Your task to perform on an android device: turn off notifications settings in the gmail app Image 0: 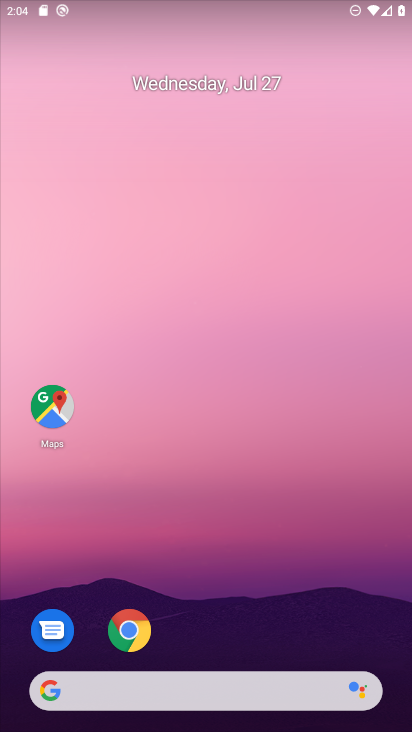
Step 0: drag from (387, 651) to (337, 155)
Your task to perform on an android device: turn off notifications settings in the gmail app Image 1: 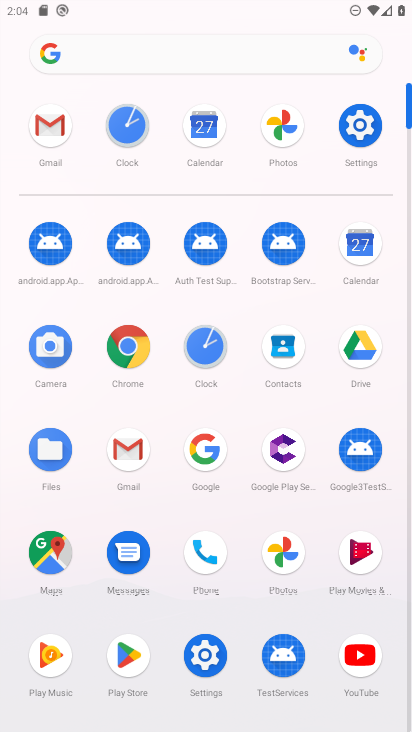
Step 1: click (124, 446)
Your task to perform on an android device: turn off notifications settings in the gmail app Image 2: 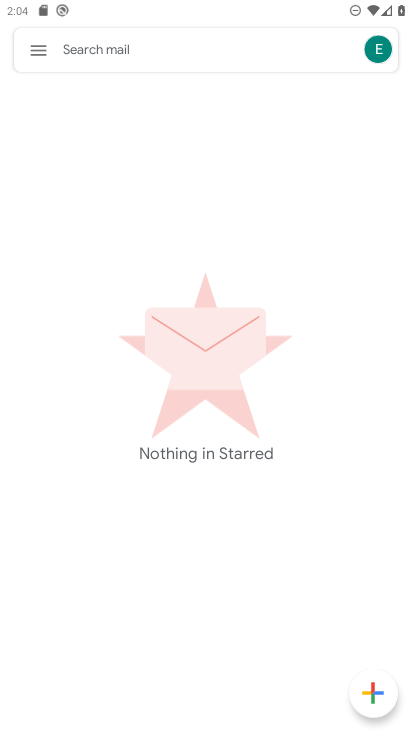
Step 2: click (36, 49)
Your task to perform on an android device: turn off notifications settings in the gmail app Image 3: 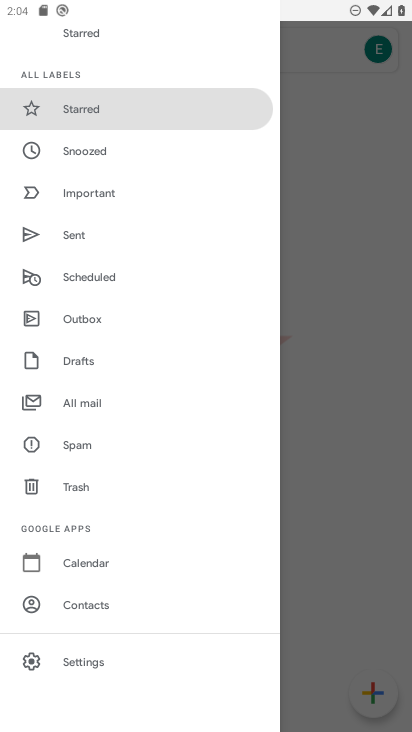
Step 3: click (75, 661)
Your task to perform on an android device: turn off notifications settings in the gmail app Image 4: 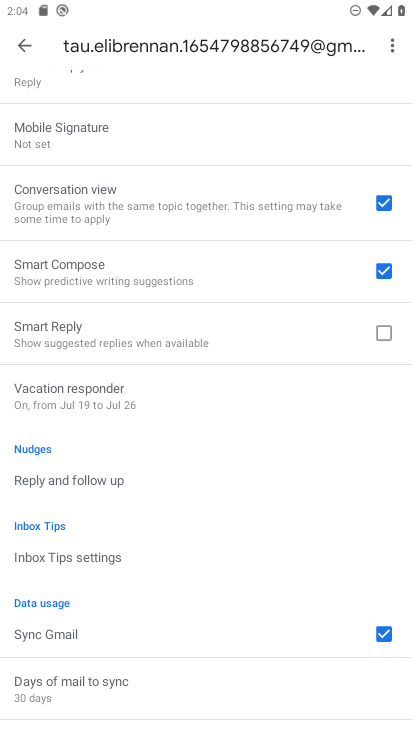
Step 4: drag from (233, 204) to (214, 486)
Your task to perform on an android device: turn off notifications settings in the gmail app Image 5: 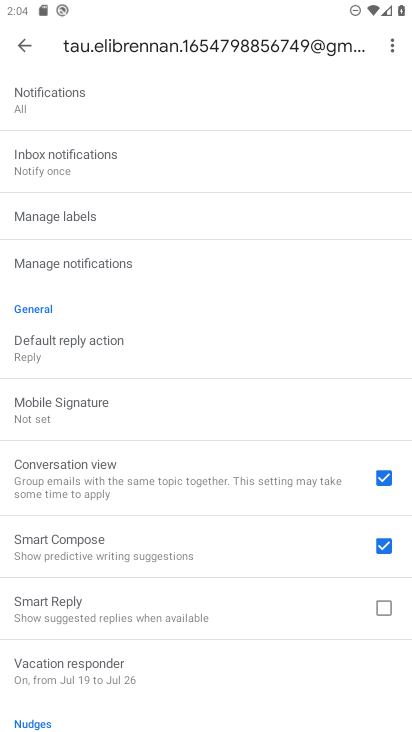
Step 5: drag from (180, 247) to (217, 550)
Your task to perform on an android device: turn off notifications settings in the gmail app Image 6: 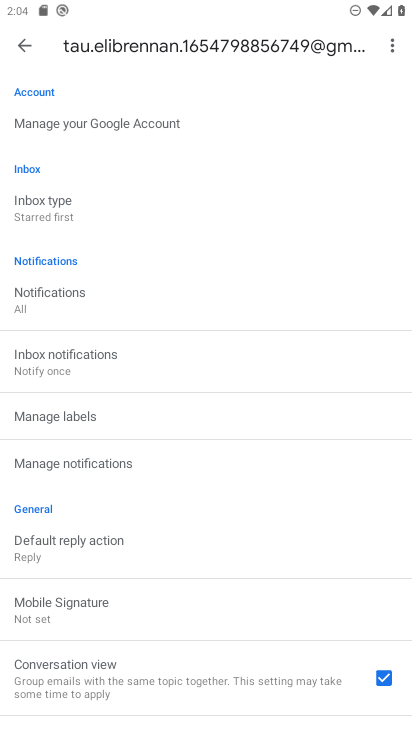
Step 6: click (87, 460)
Your task to perform on an android device: turn off notifications settings in the gmail app Image 7: 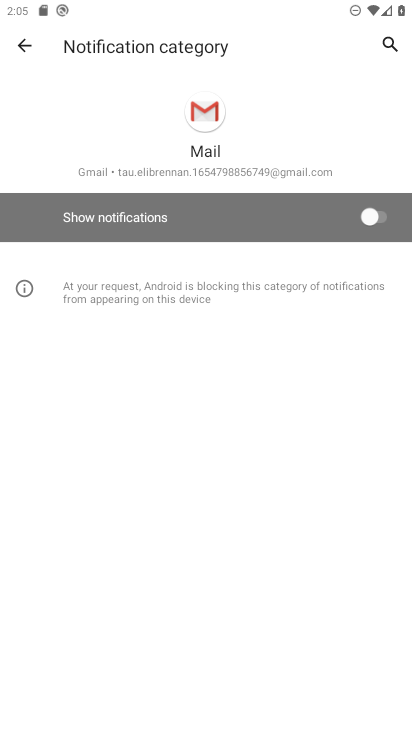
Step 7: task complete